Your task to perform on an android device: toggle show notifications on the lock screen Image 0: 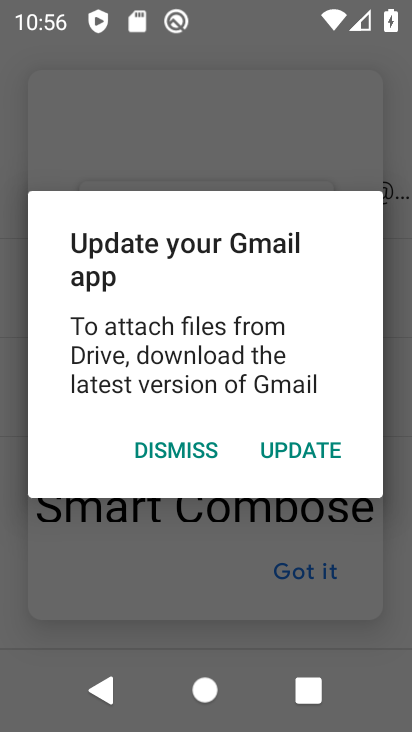
Step 0: press home button
Your task to perform on an android device: toggle show notifications on the lock screen Image 1: 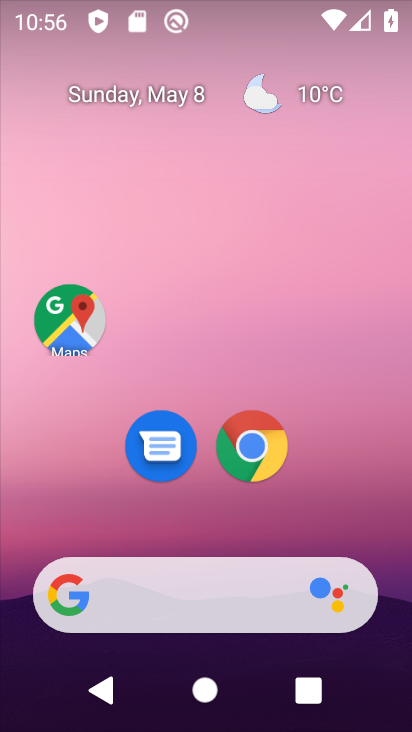
Step 1: drag from (301, 509) to (287, 0)
Your task to perform on an android device: toggle show notifications on the lock screen Image 2: 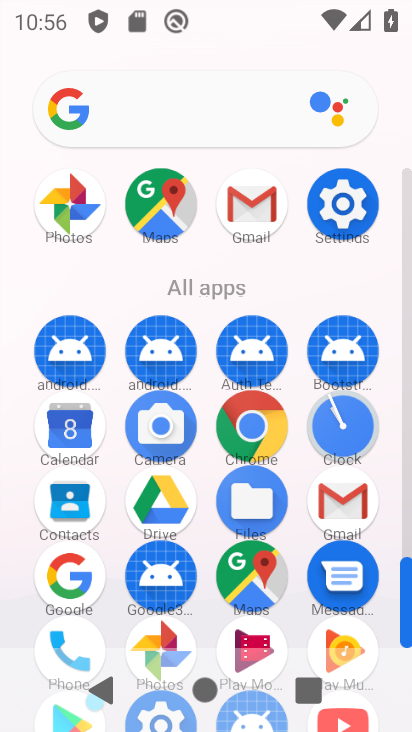
Step 2: click (322, 208)
Your task to perform on an android device: toggle show notifications on the lock screen Image 3: 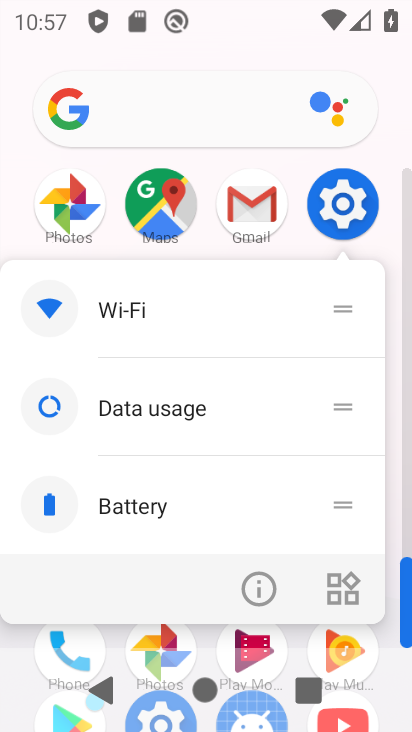
Step 3: click (322, 208)
Your task to perform on an android device: toggle show notifications on the lock screen Image 4: 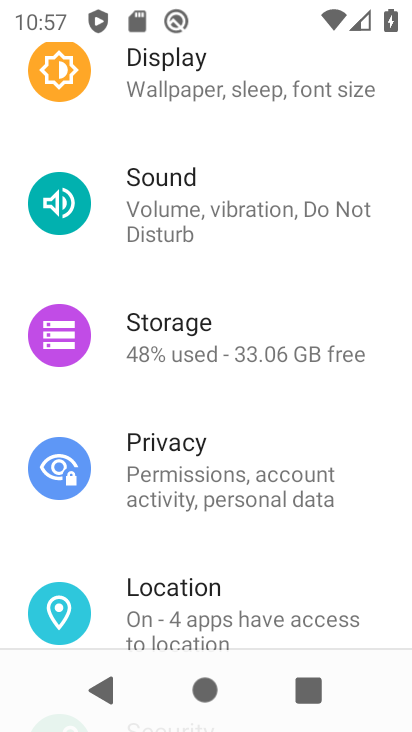
Step 4: drag from (181, 328) to (256, 549)
Your task to perform on an android device: toggle show notifications on the lock screen Image 5: 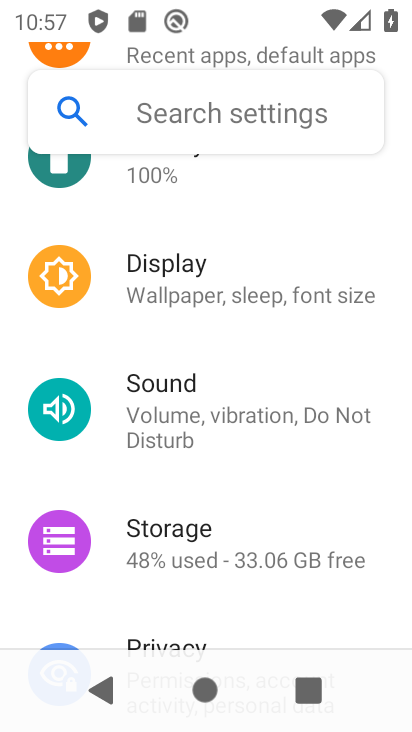
Step 5: drag from (240, 307) to (302, 490)
Your task to perform on an android device: toggle show notifications on the lock screen Image 6: 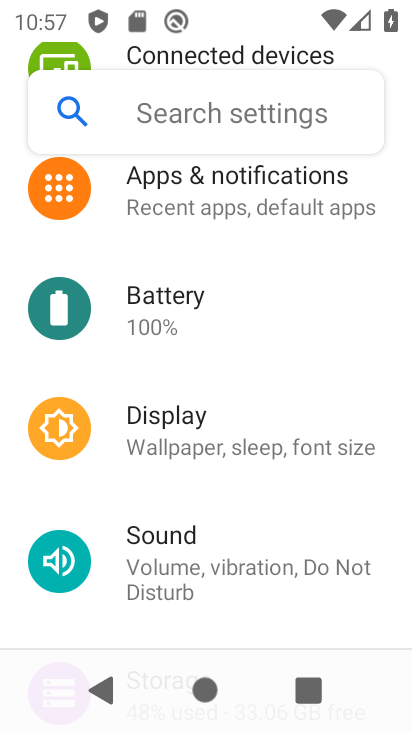
Step 6: click (288, 209)
Your task to perform on an android device: toggle show notifications on the lock screen Image 7: 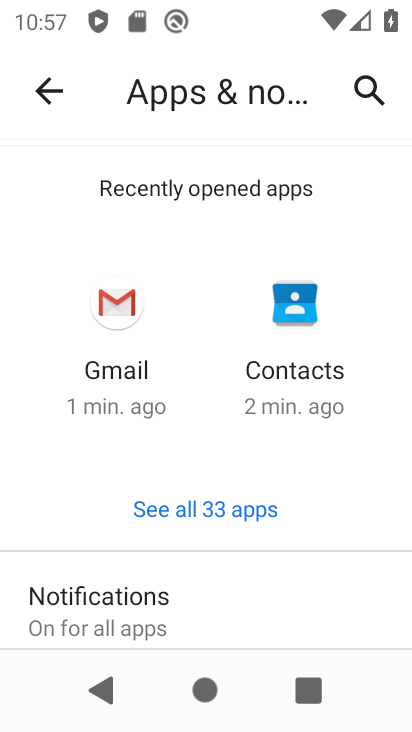
Step 7: click (176, 598)
Your task to perform on an android device: toggle show notifications on the lock screen Image 8: 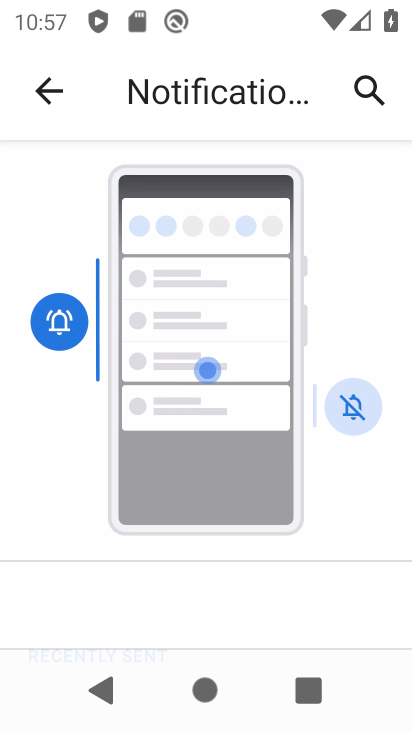
Step 8: drag from (166, 618) to (172, 231)
Your task to perform on an android device: toggle show notifications on the lock screen Image 9: 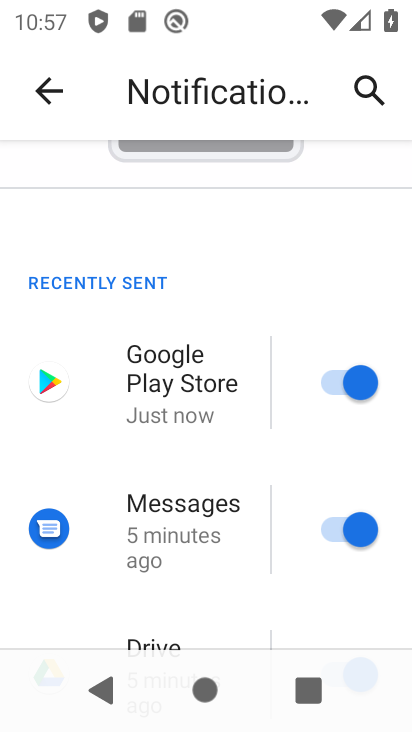
Step 9: drag from (202, 550) to (209, 181)
Your task to perform on an android device: toggle show notifications on the lock screen Image 10: 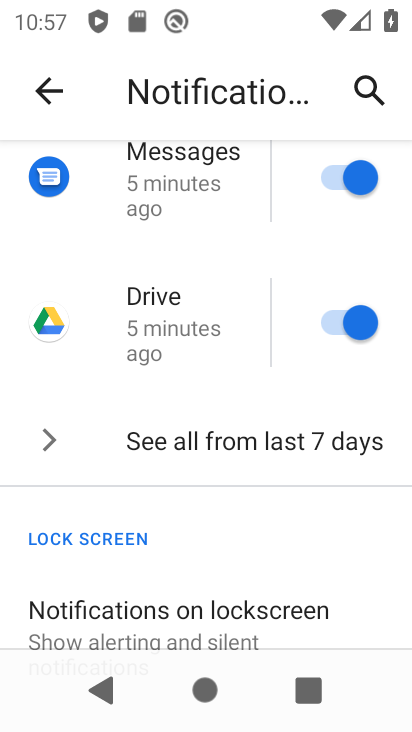
Step 10: drag from (269, 572) to (226, 265)
Your task to perform on an android device: toggle show notifications on the lock screen Image 11: 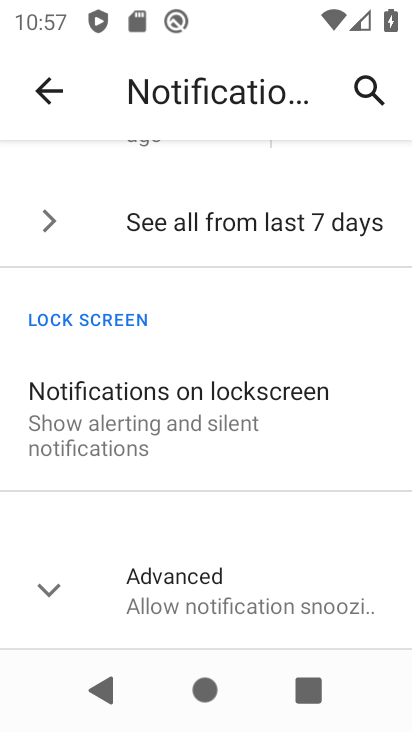
Step 11: click (245, 412)
Your task to perform on an android device: toggle show notifications on the lock screen Image 12: 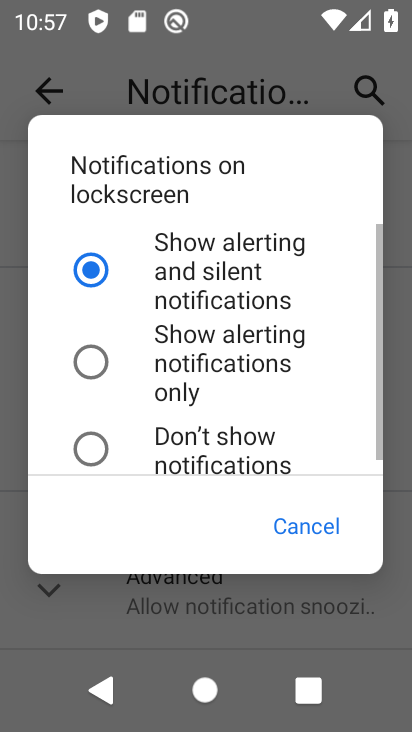
Step 12: click (224, 356)
Your task to perform on an android device: toggle show notifications on the lock screen Image 13: 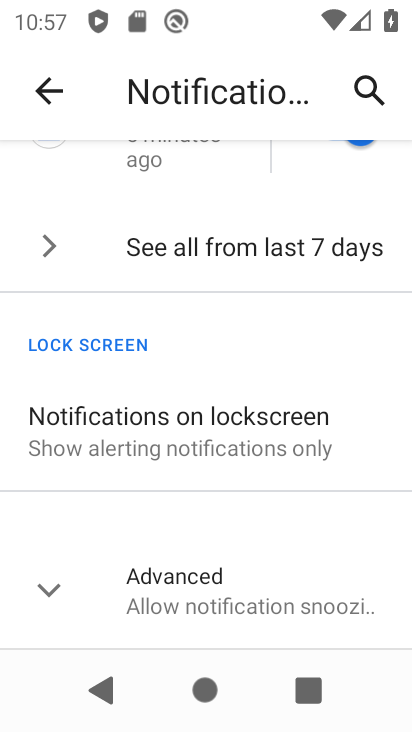
Step 13: task complete